Your task to perform on an android device: Go to Amazon Image 0: 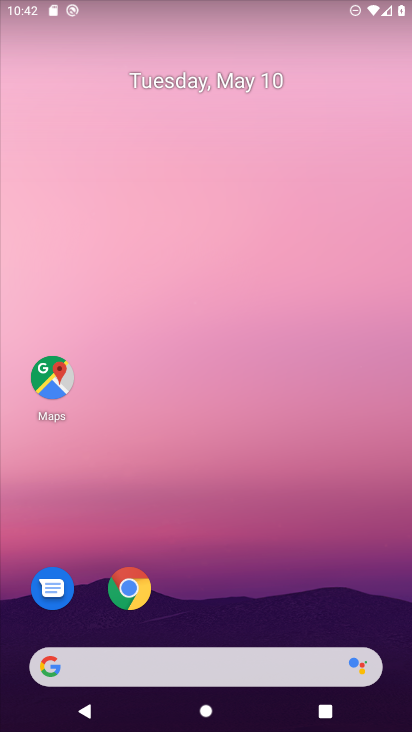
Step 0: drag from (211, 606) to (249, 157)
Your task to perform on an android device: Go to Amazon Image 1: 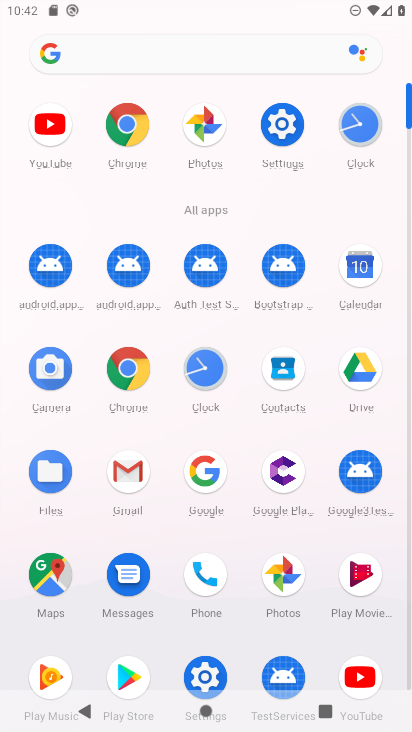
Step 1: click (127, 98)
Your task to perform on an android device: Go to Amazon Image 2: 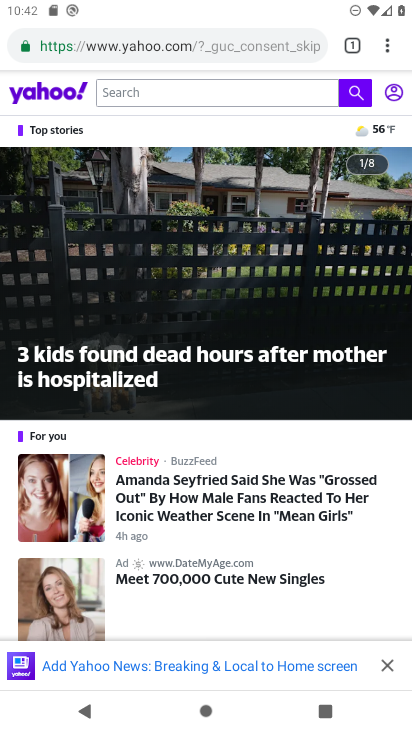
Step 2: click (359, 37)
Your task to perform on an android device: Go to Amazon Image 3: 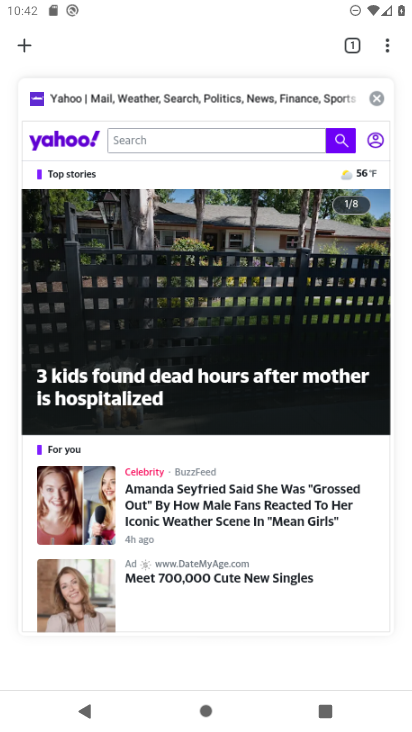
Step 3: click (17, 44)
Your task to perform on an android device: Go to Amazon Image 4: 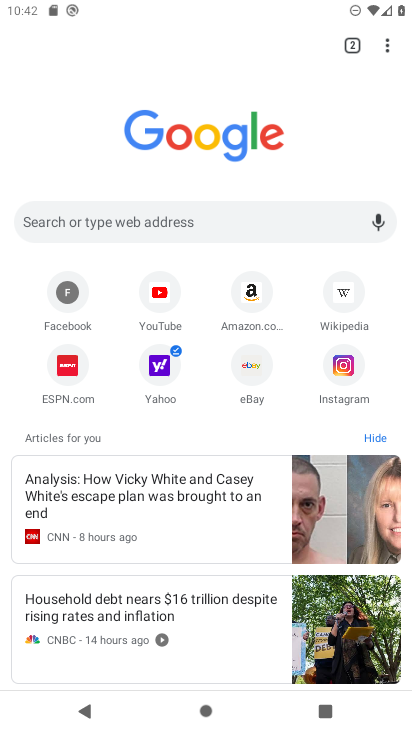
Step 4: click (232, 301)
Your task to perform on an android device: Go to Amazon Image 5: 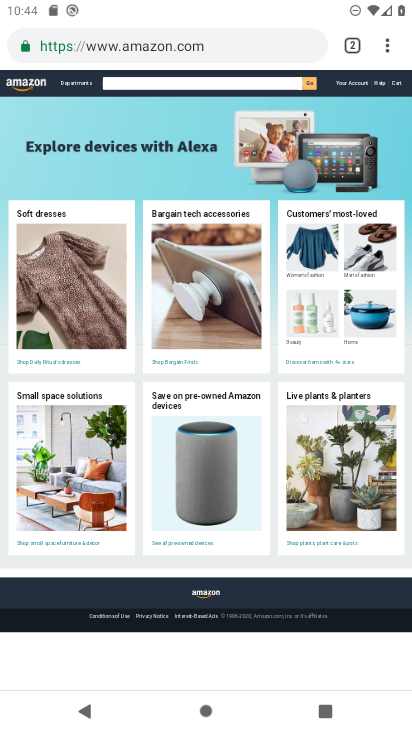
Step 5: task complete